Your task to perform on an android device: delete browsing data in the chrome app Image 0: 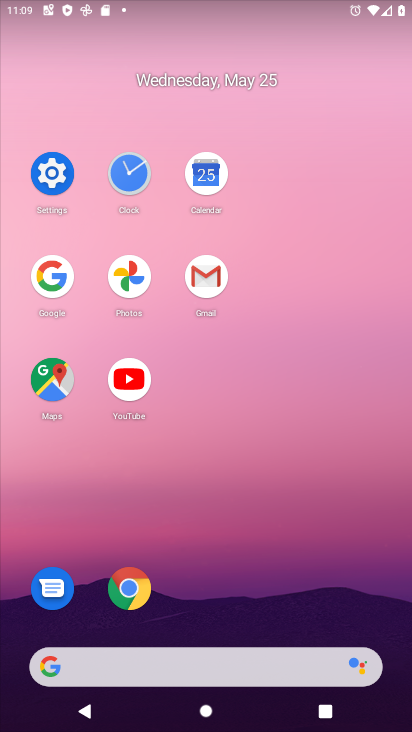
Step 0: click (126, 588)
Your task to perform on an android device: delete browsing data in the chrome app Image 1: 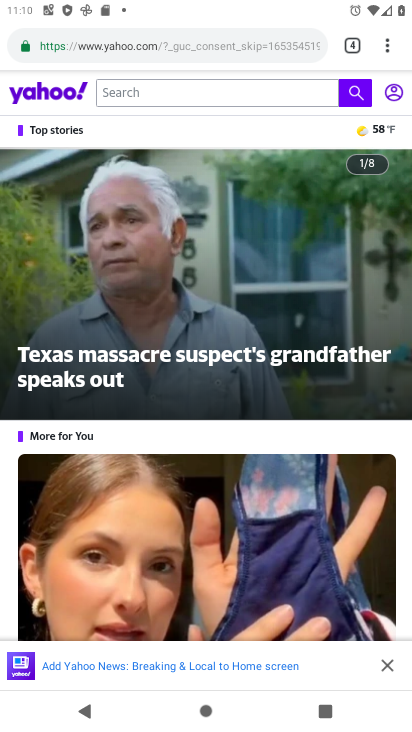
Step 1: click (385, 47)
Your task to perform on an android device: delete browsing data in the chrome app Image 2: 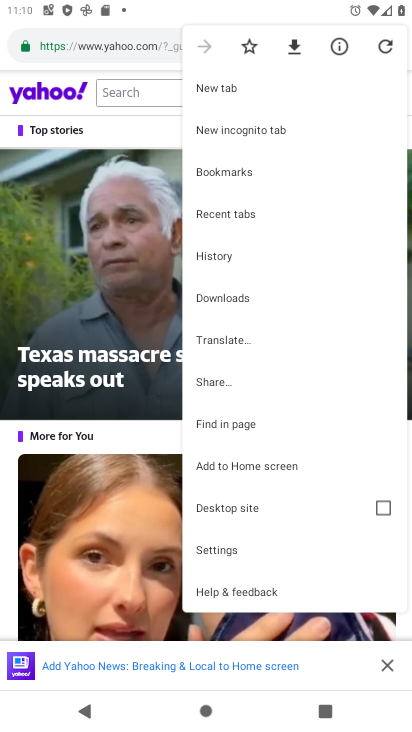
Step 2: click (237, 545)
Your task to perform on an android device: delete browsing data in the chrome app Image 3: 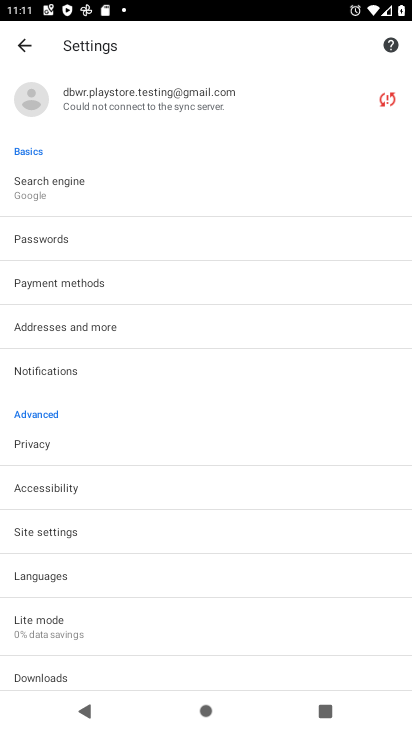
Step 3: drag from (170, 562) to (124, 213)
Your task to perform on an android device: delete browsing data in the chrome app Image 4: 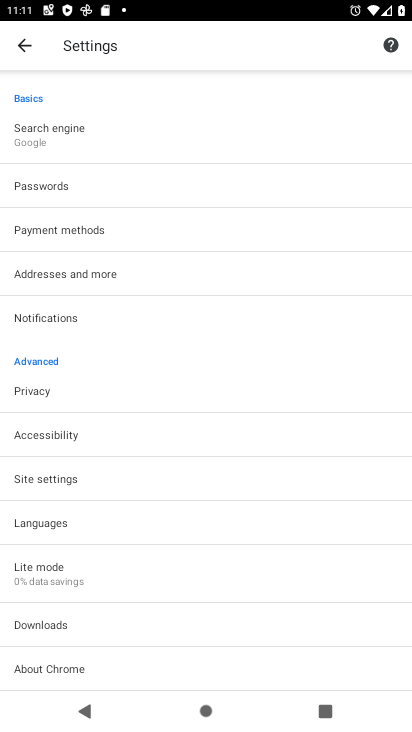
Step 4: click (107, 381)
Your task to perform on an android device: delete browsing data in the chrome app Image 5: 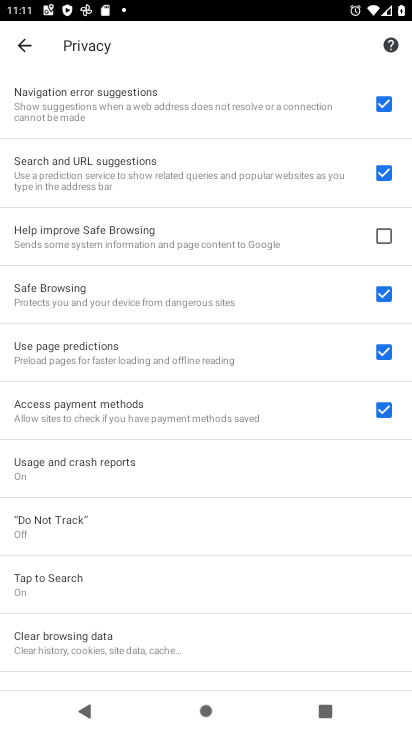
Step 5: drag from (259, 549) to (177, 101)
Your task to perform on an android device: delete browsing data in the chrome app Image 6: 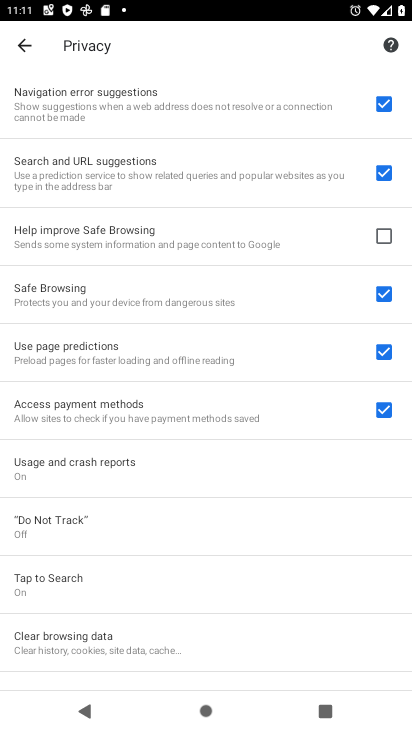
Step 6: click (231, 625)
Your task to perform on an android device: delete browsing data in the chrome app Image 7: 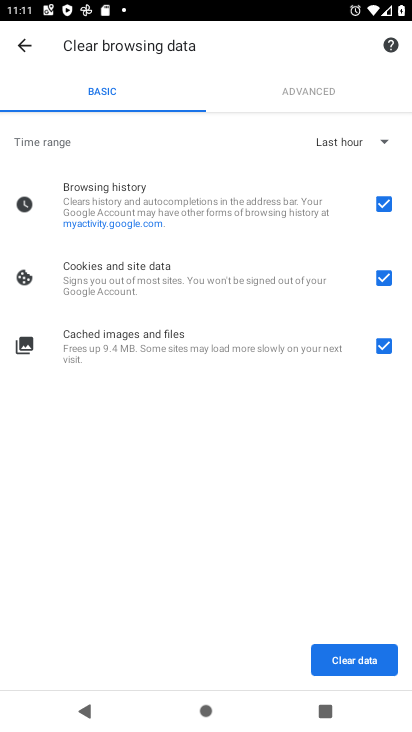
Step 7: click (339, 657)
Your task to perform on an android device: delete browsing data in the chrome app Image 8: 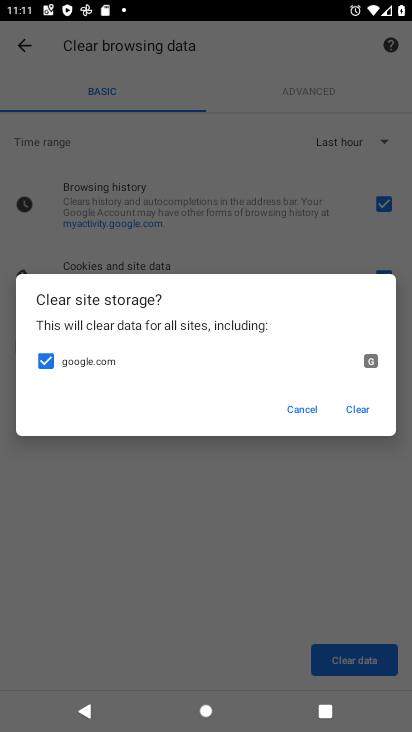
Step 8: click (368, 409)
Your task to perform on an android device: delete browsing data in the chrome app Image 9: 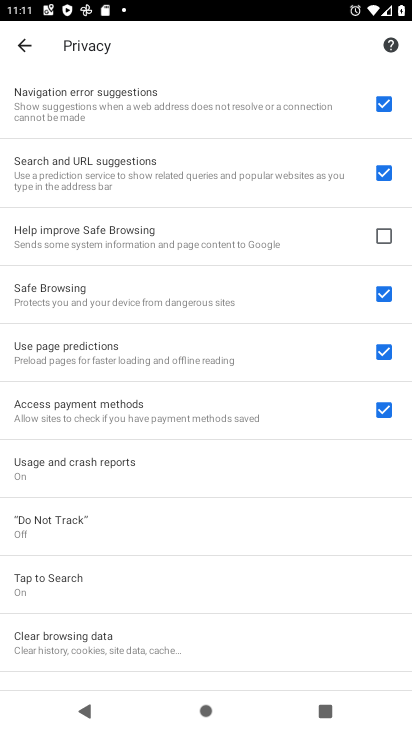
Step 9: task complete